Your task to perform on an android device: set an alarm Image 0: 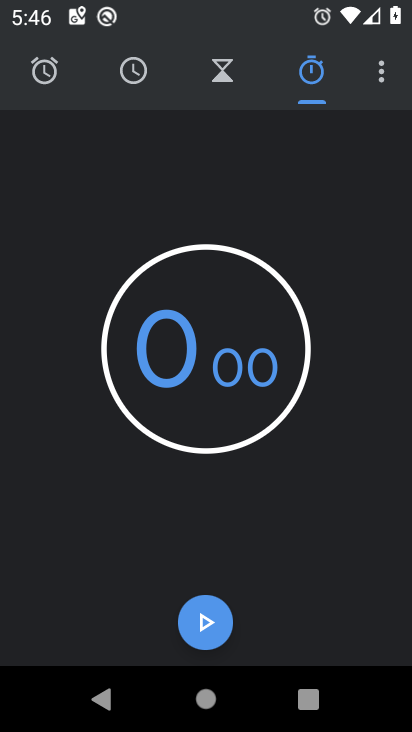
Step 0: click (23, 62)
Your task to perform on an android device: set an alarm Image 1: 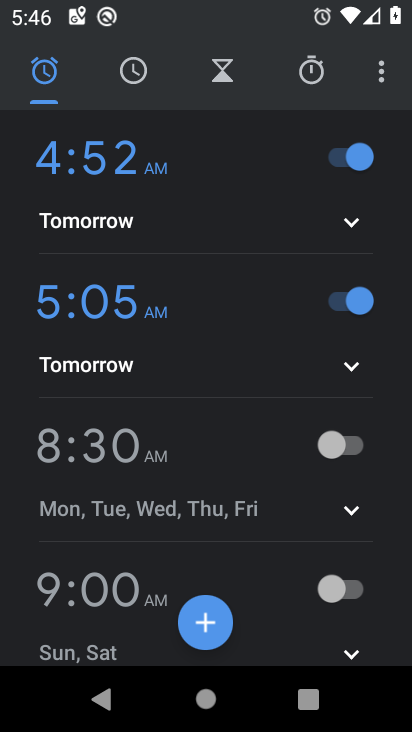
Step 1: click (202, 614)
Your task to perform on an android device: set an alarm Image 2: 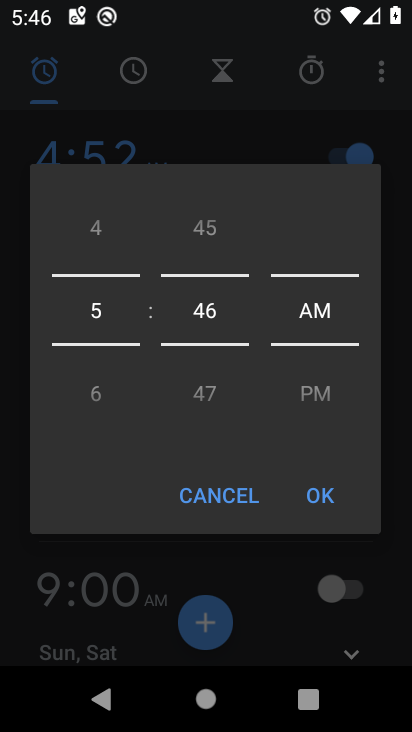
Step 2: click (335, 500)
Your task to perform on an android device: set an alarm Image 3: 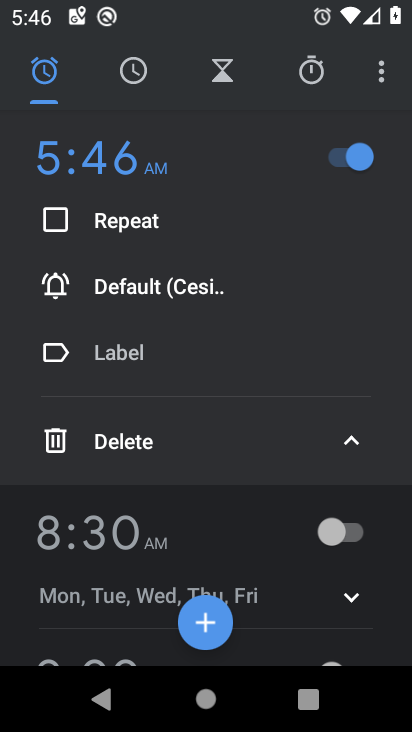
Step 3: task complete